Your task to perform on an android device: Show me recent news Image 0: 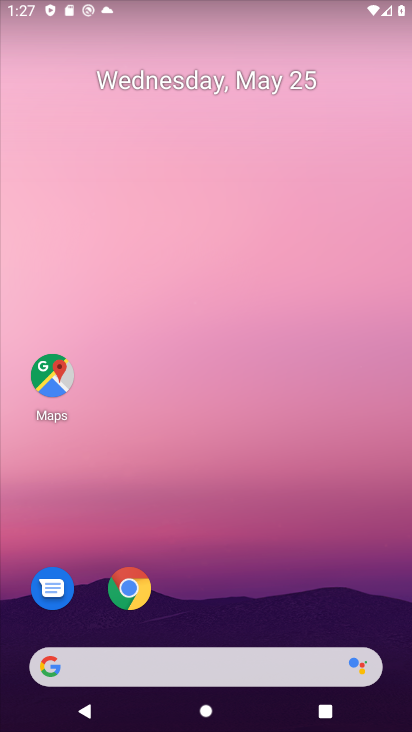
Step 0: click (193, 674)
Your task to perform on an android device: Show me recent news Image 1: 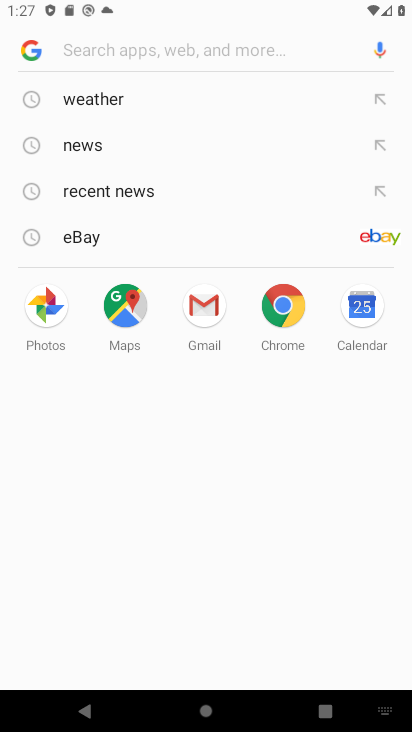
Step 1: type "recent news"
Your task to perform on an android device: Show me recent news Image 2: 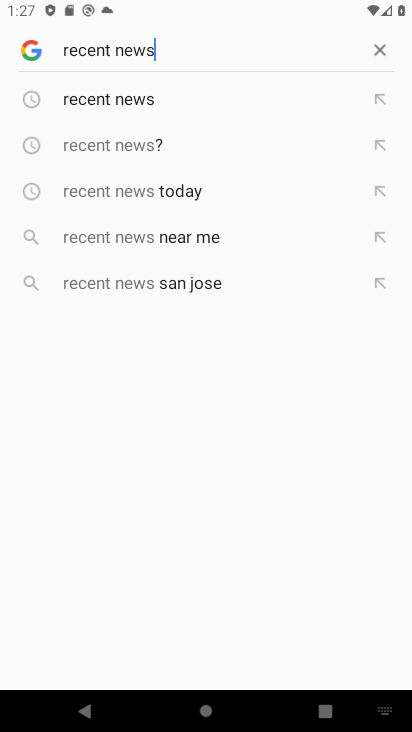
Step 2: click (126, 92)
Your task to perform on an android device: Show me recent news Image 3: 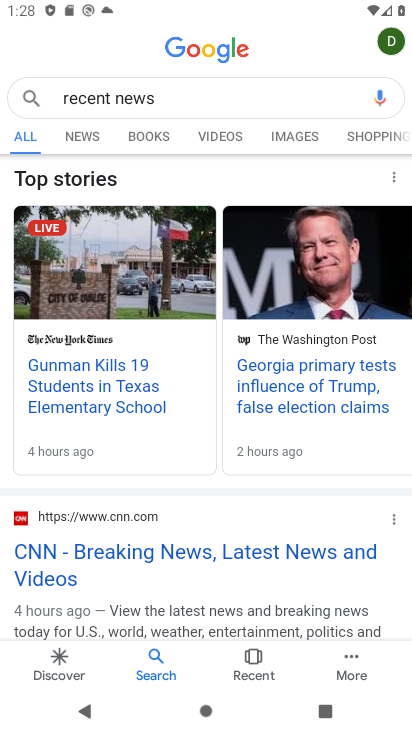
Step 3: click (89, 145)
Your task to perform on an android device: Show me recent news Image 4: 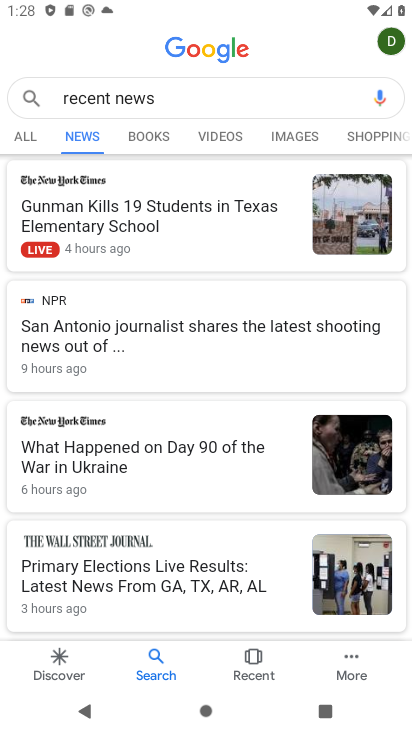
Step 4: task complete